Your task to perform on an android device: turn off picture-in-picture Image 0: 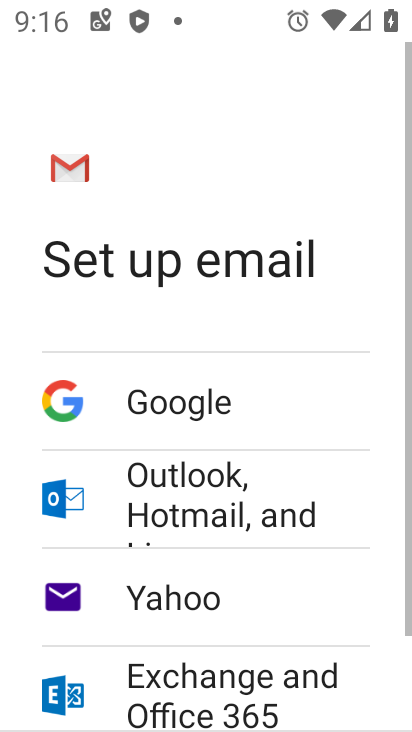
Step 0: press home button
Your task to perform on an android device: turn off picture-in-picture Image 1: 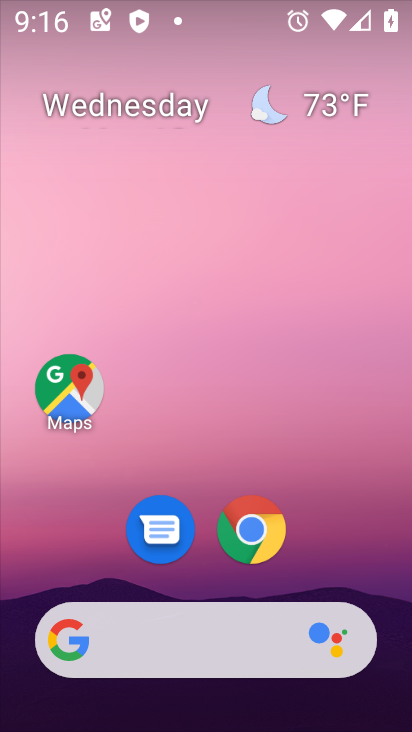
Step 1: drag from (377, 566) to (353, 216)
Your task to perform on an android device: turn off picture-in-picture Image 2: 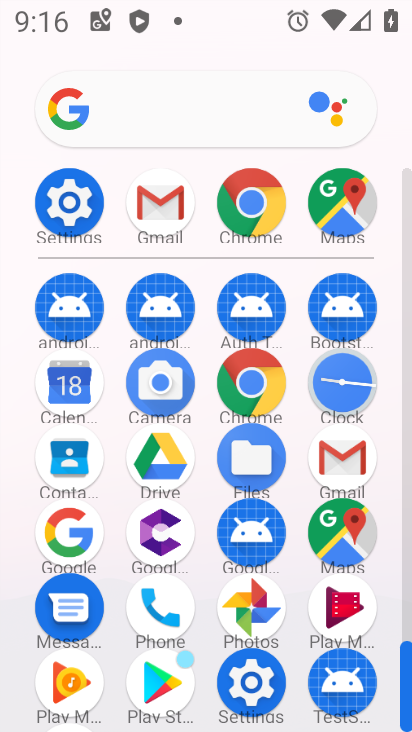
Step 2: click (75, 235)
Your task to perform on an android device: turn off picture-in-picture Image 3: 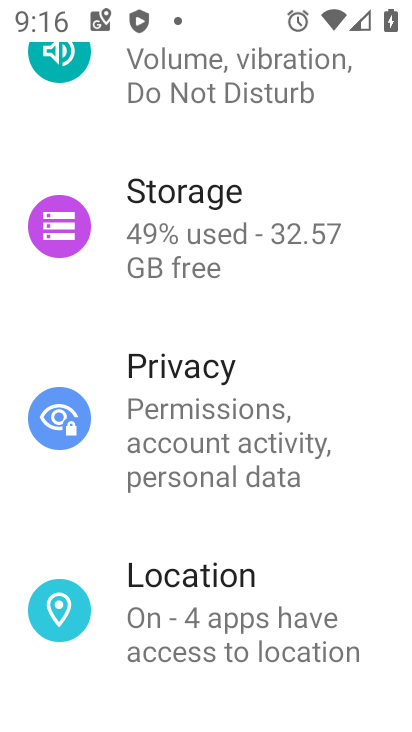
Step 3: drag from (368, 383) to (372, 475)
Your task to perform on an android device: turn off picture-in-picture Image 4: 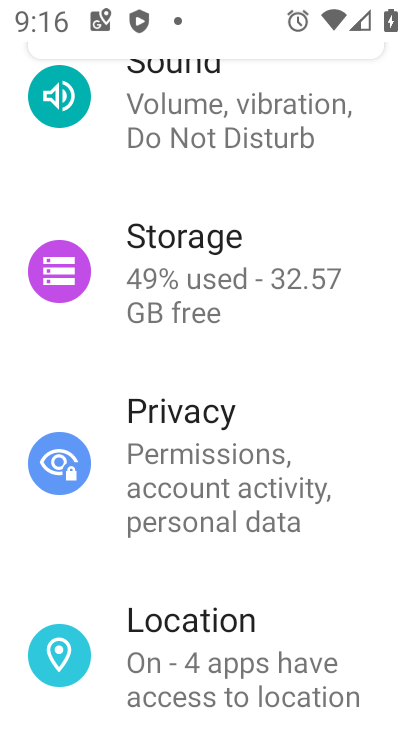
Step 4: drag from (363, 320) to (366, 405)
Your task to perform on an android device: turn off picture-in-picture Image 5: 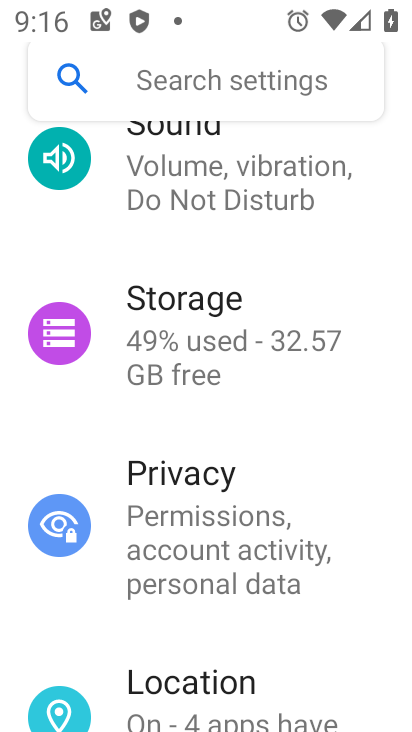
Step 5: drag from (351, 273) to (375, 364)
Your task to perform on an android device: turn off picture-in-picture Image 6: 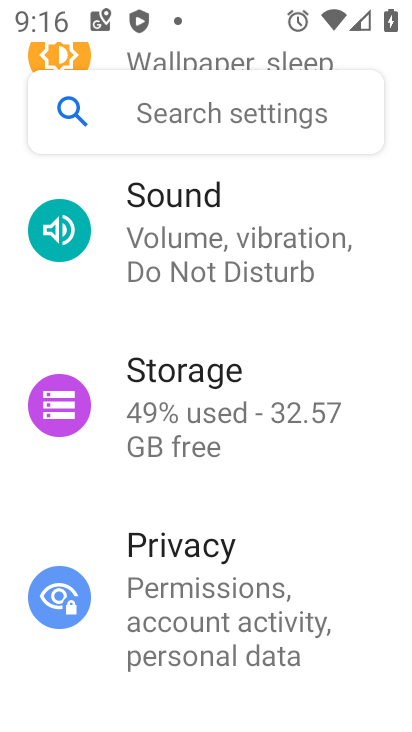
Step 6: drag from (374, 286) to (366, 364)
Your task to perform on an android device: turn off picture-in-picture Image 7: 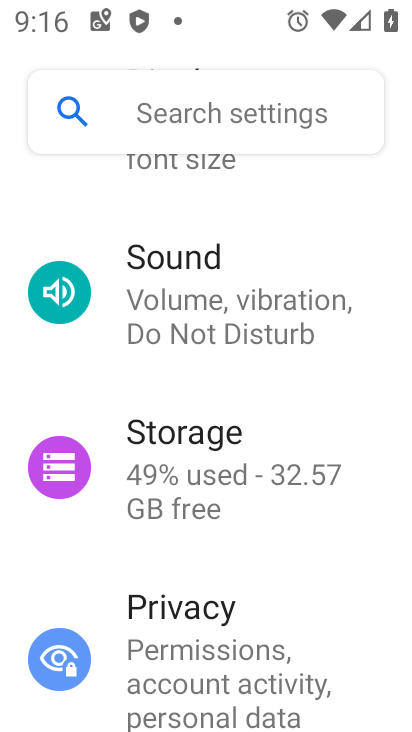
Step 7: drag from (361, 247) to (347, 390)
Your task to perform on an android device: turn off picture-in-picture Image 8: 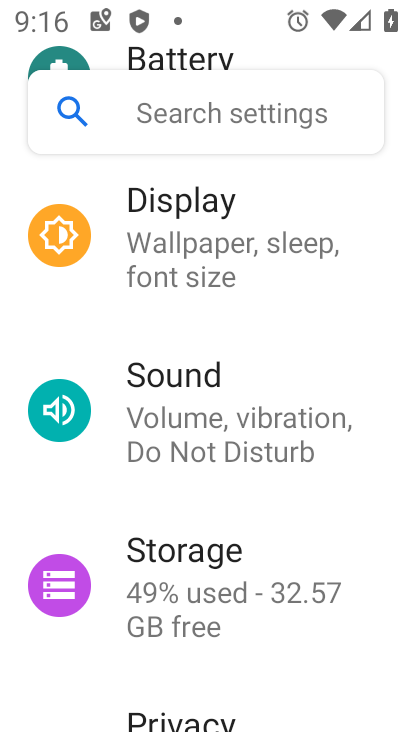
Step 8: drag from (341, 284) to (346, 387)
Your task to perform on an android device: turn off picture-in-picture Image 9: 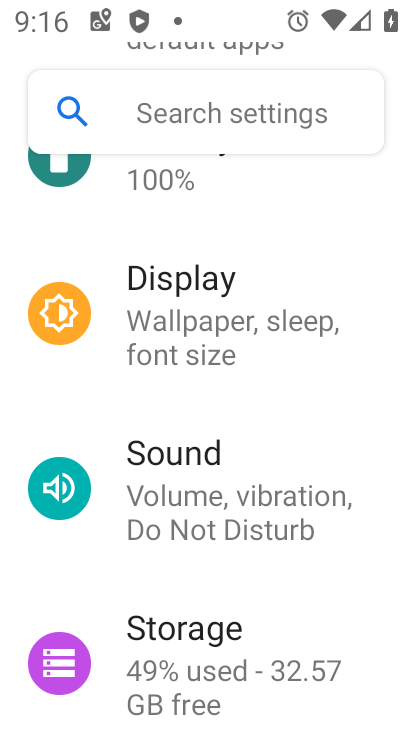
Step 9: drag from (341, 266) to (356, 383)
Your task to perform on an android device: turn off picture-in-picture Image 10: 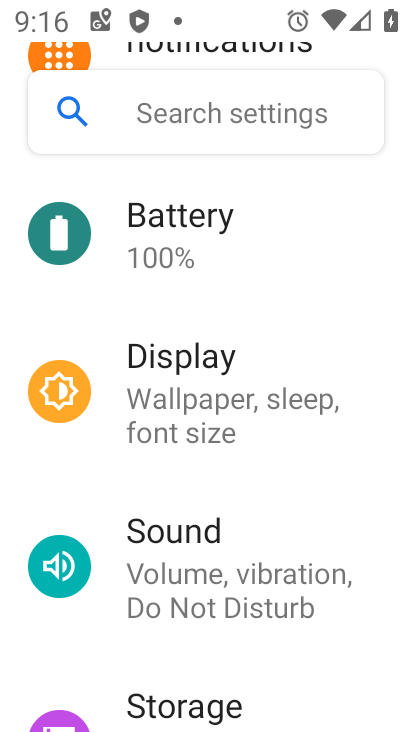
Step 10: drag from (369, 269) to (375, 425)
Your task to perform on an android device: turn off picture-in-picture Image 11: 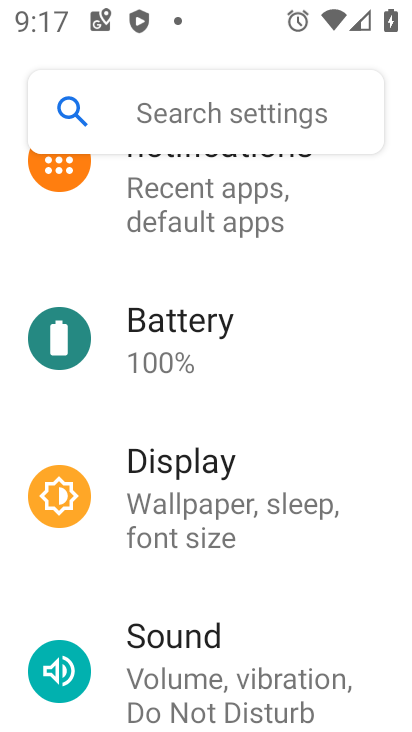
Step 11: drag from (344, 269) to (335, 390)
Your task to perform on an android device: turn off picture-in-picture Image 12: 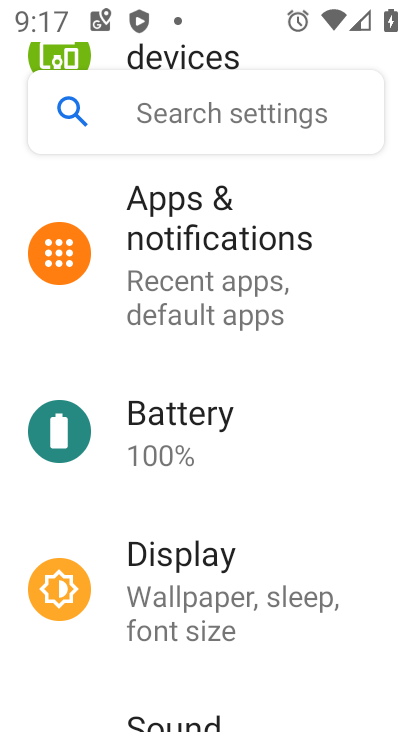
Step 12: drag from (337, 206) to (325, 383)
Your task to perform on an android device: turn off picture-in-picture Image 13: 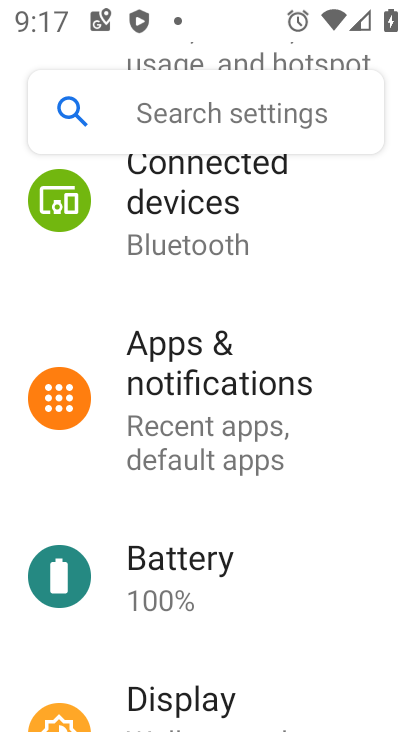
Step 13: click (250, 410)
Your task to perform on an android device: turn off picture-in-picture Image 14: 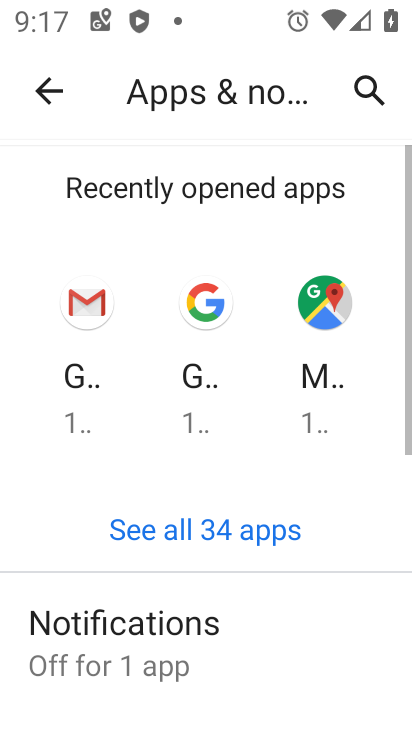
Step 14: drag from (308, 574) to (287, 364)
Your task to perform on an android device: turn off picture-in-picture Image 15: 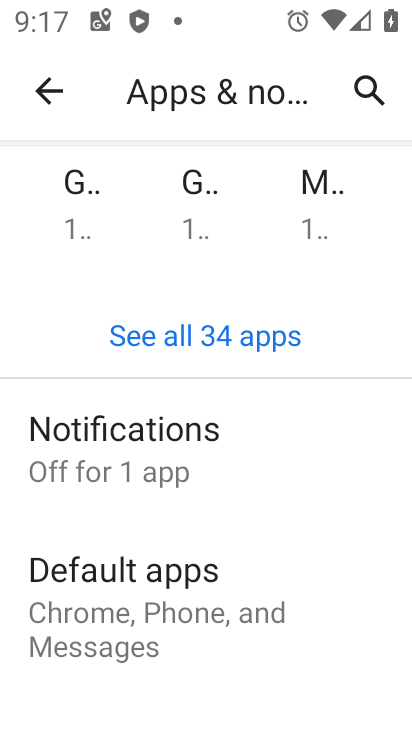
Step 15: drag from (315, 516) to (309, 426)
Your task to perform on an android device: turn off picture-in-picture Image 16: 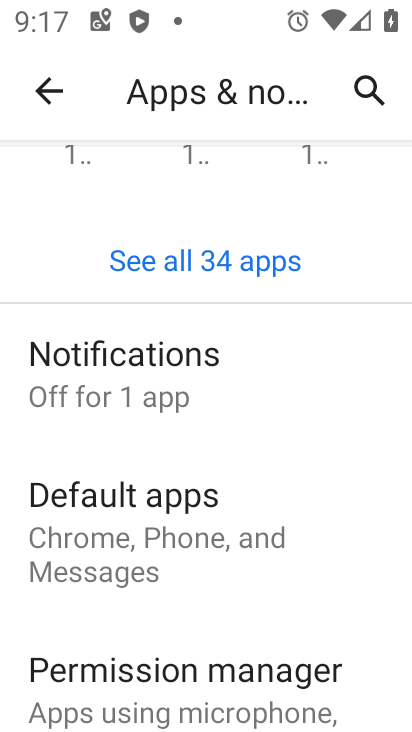
Step 16: drag from (338, 596) to (324, 482)
Your task to perform on an android device: turn off picture-in-picture Image 17: 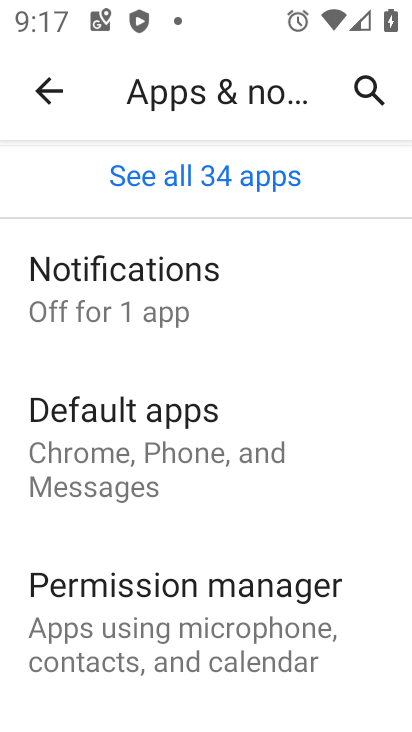
Step 17: drag from (363, 636) to (357, 529)
Your task to perform on an android device: turn off picture-in-picture Image 18: 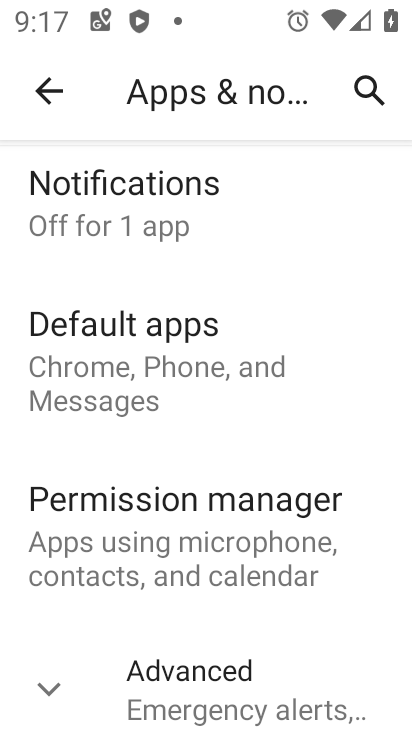
Step 18: drag from (370, 632) to (362, 536)
Your task to perform on an android device: turn off picture-in-picture Image 19: 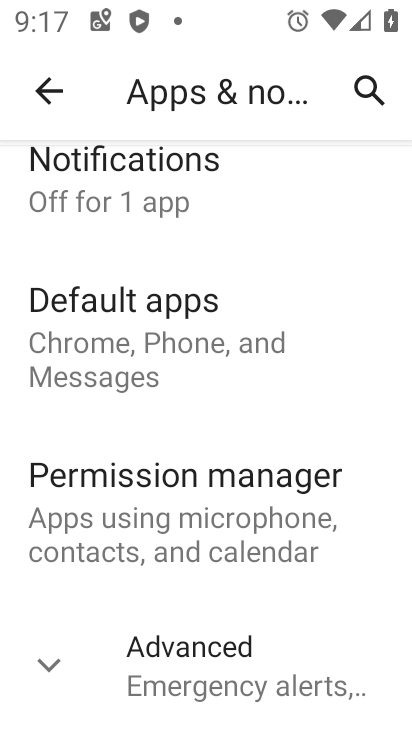
Step 19: click (228, 655)
Your task to perform on an android device: turn off picture-in-picture Image 20: 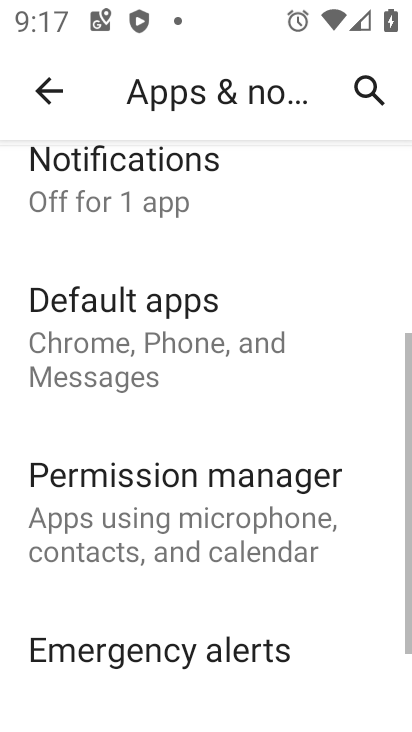
Step 20: drag from (363, 609) to (363, 509)
Your task to perform on an android device: turn off picture-in-picture Image 21: 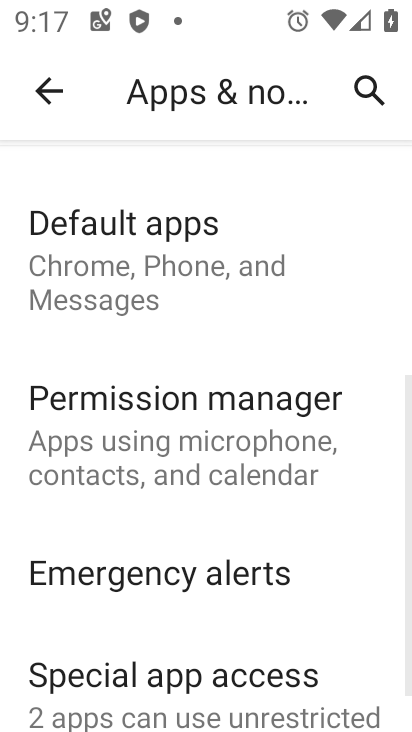
Step 21: drag from (361, 634) to (358, 493)
Your task to perform on an android device: turn off picture-in-picture Image 22: 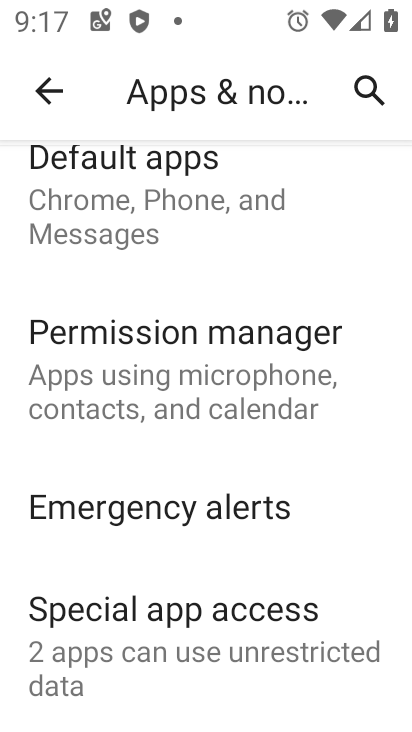
Step 22: click (255, 621)
Your task to perform on an android device: turn off picture-in-picture Image 23: 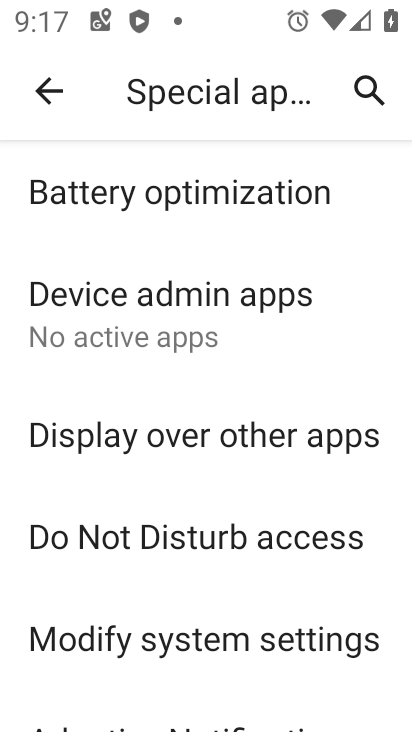
Step 23: drag from (344, 593) to (366, 446)
Your task to perform on an android device: turn off picture-in-picture Image 24: 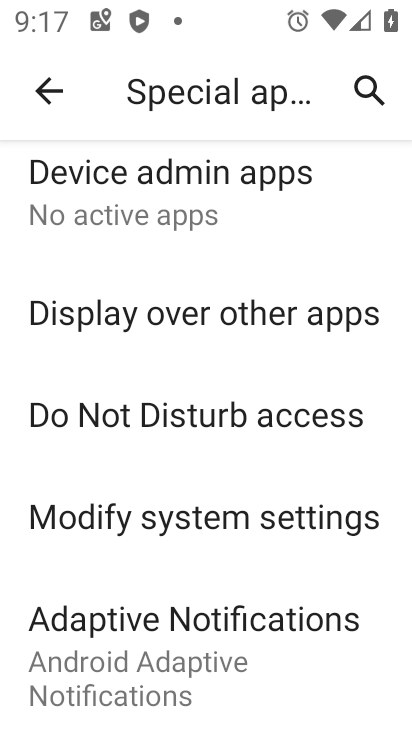
Step 24: drag from (374, 668) to (366, 547)
Your task to perform on an android device: turn off picture-in-picture Image 25: 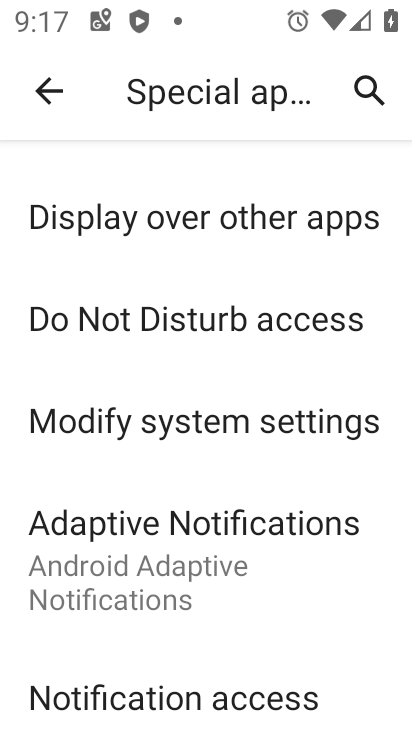
Step 25: drag from (368, 635) to (360, 576)
Your task to perform on an android device: turn off picture-in-picture Image 26: 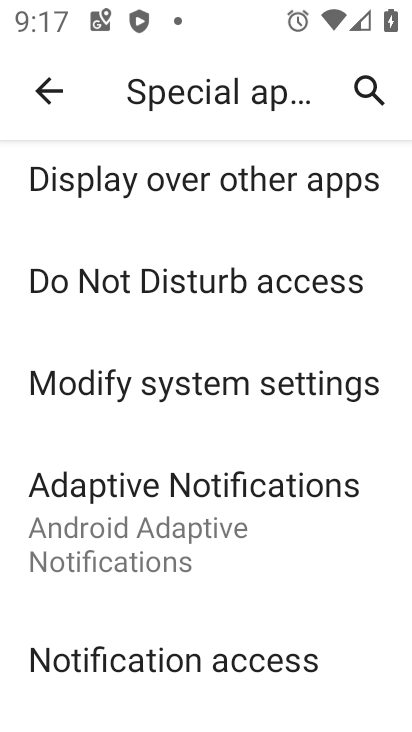
Step 26: drag from (369, 675) to (367, 543)
Your task to perform on an android device: turn off picture-in-picture Image 27: 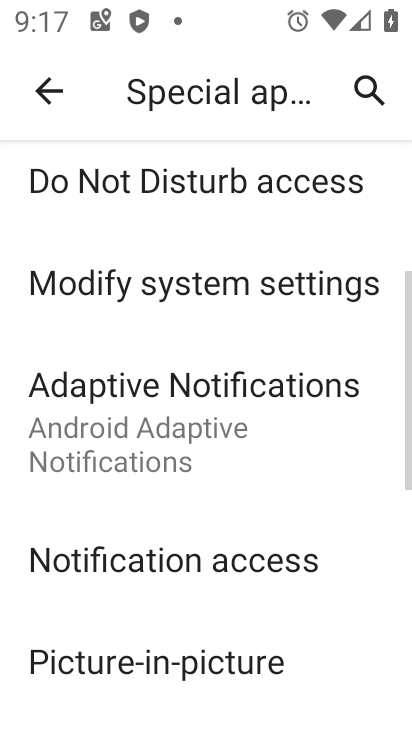
Step 27: drag from (359, 670) to (359, 526)
Your task to perform on an android device: turn off picture-in-picture Image 28: 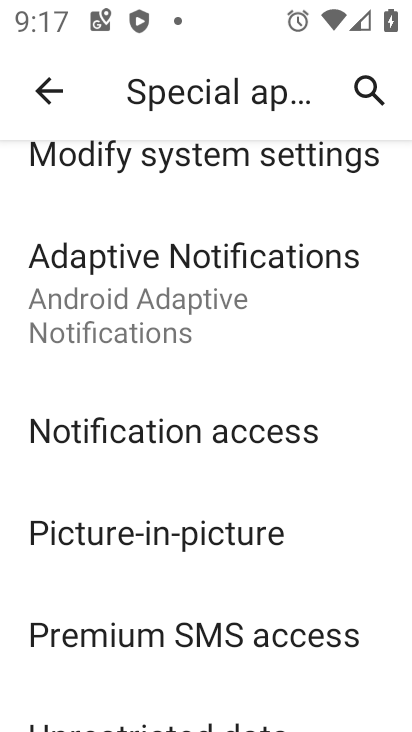
Step 28: drag from (375, 681) to (376, 579)
Your task to perform on an android device: turn off picture-in-picture Image 29: 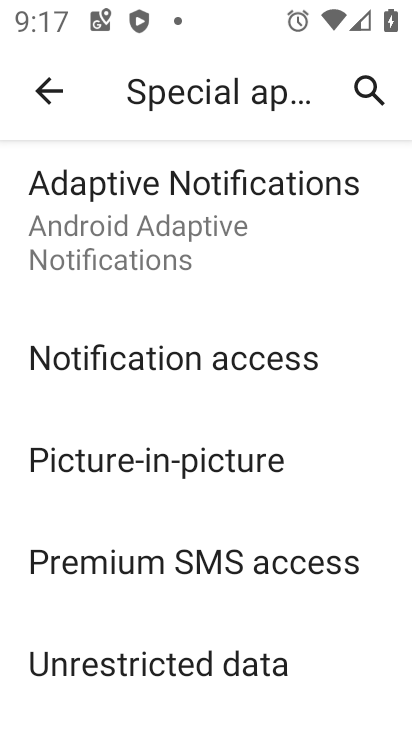
Step 29: click (282, 467)
Your task to perform on an android device: turn off picture-in-picture Image 30: 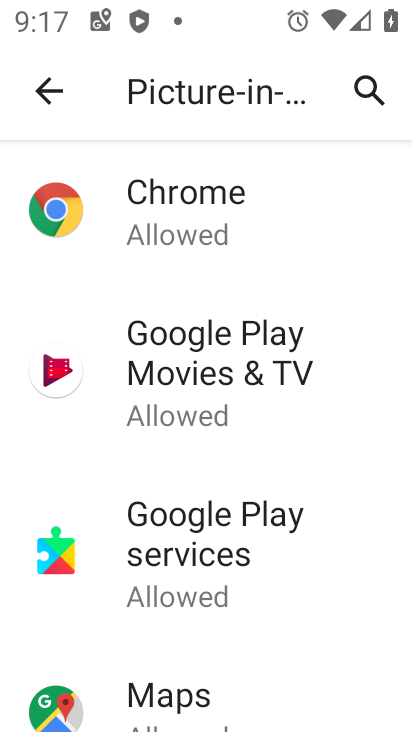
Step 30: drag from (313, 623) to (316, 525)
Your task to perform on an android device: turn off picture-in-picture Image 31: 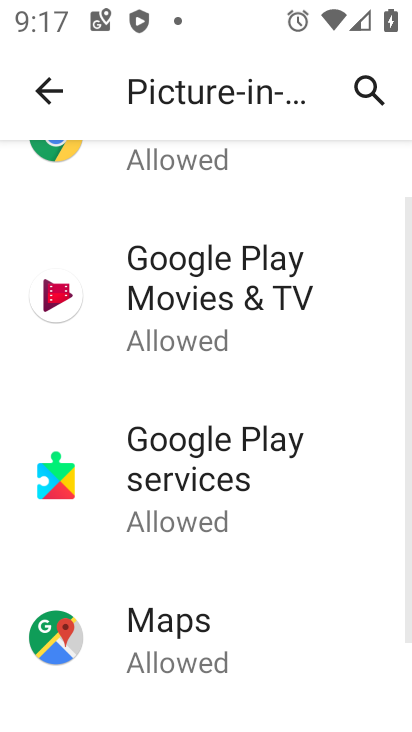
Step 31: drag from (328, 635) to (331, 505)
Your task to perform on an android device: turn off picture-in-picture Image 32: 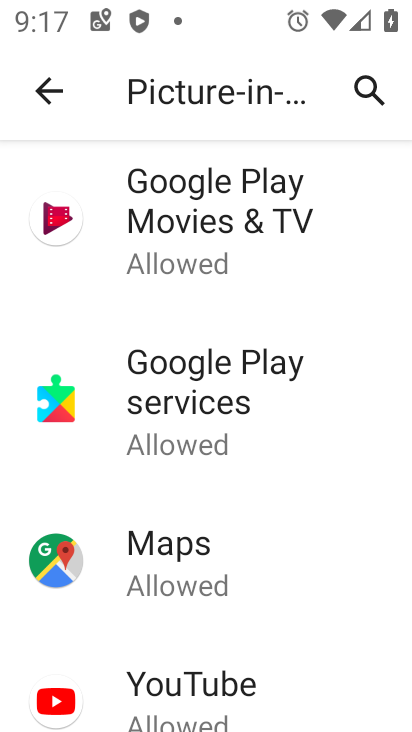
Step 32: drag from (345, 661) to (340, 560)
Your task to perform on an android device: turn off picture-in-picture Image 33: 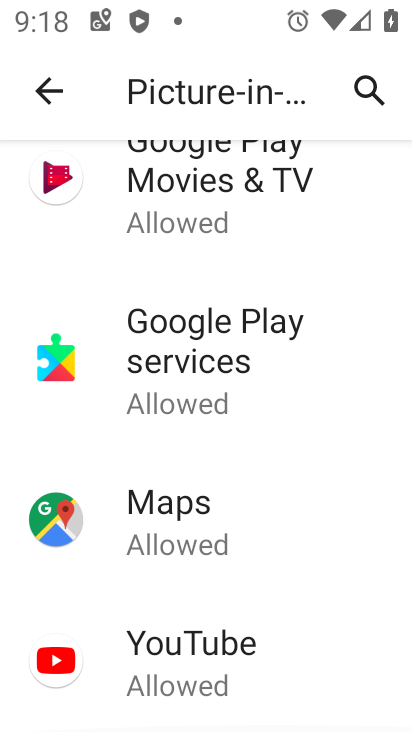
Step 33: click (226, 663)
Your task to perform on an android device: turn off picture-in-picture Image 34: 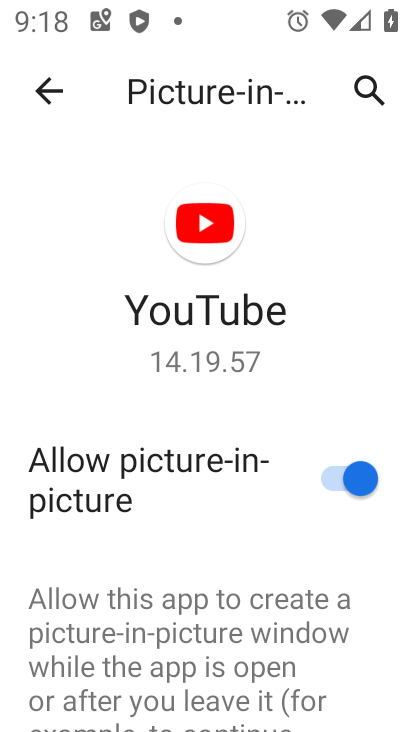
Step 34: drag from (370, 680) to (363, 612)
Your task to perform on an android device: turn off picture-in-picture Image 35: 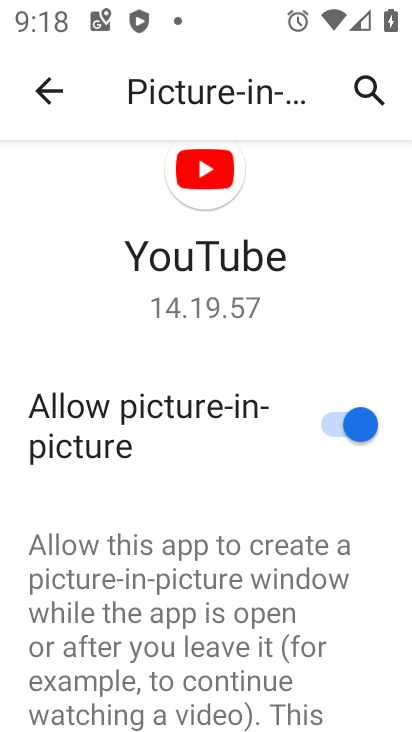
Step 35: click (362, 434)
Your task to perform on an android device: turn off picture-in-picture Image 36: 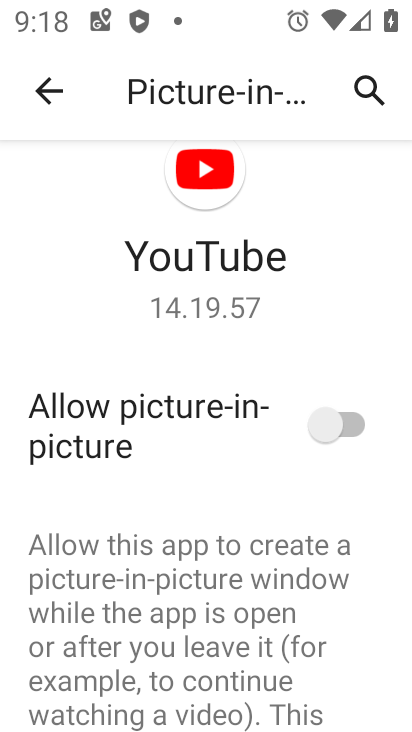
Step 36: task complete